Your task to perform on an android device: allow cookies in the chrome app Image 0: 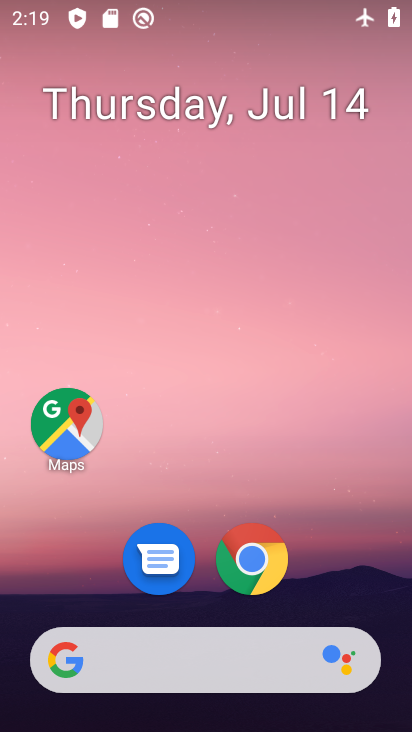
Step 0: drag from (224, 643) to (269, 225)
Your task to perform on an android device: allow cookies in the chrome app Image 1: 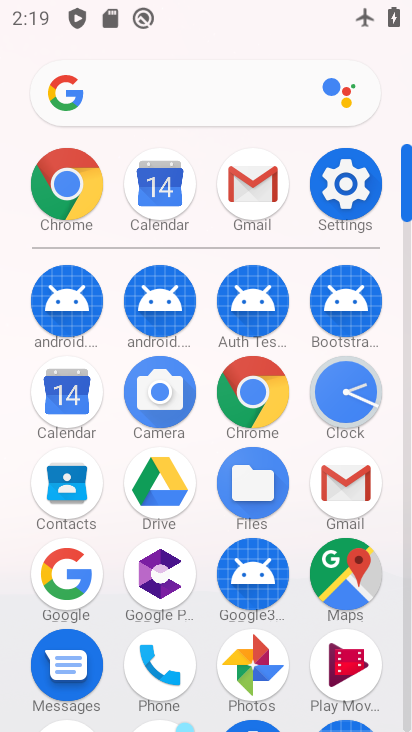
Step 1: click (68, 187)
Your task to perform on an android device: allow cookies in the chrome app Image 2: 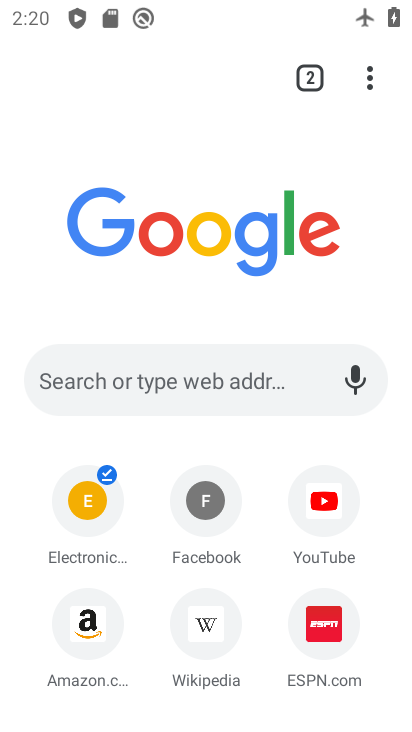
Step 2: click (371, 85)
Your task to perform on an android device: allow cookies in the chrome app Image 3: 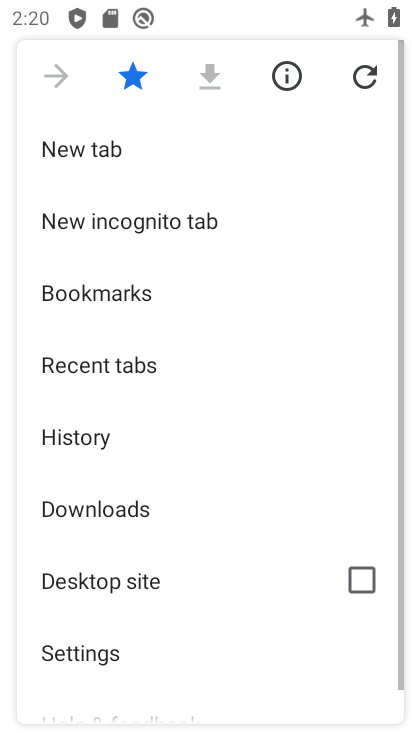
Step 3: drag from (134, 440) to (167, 186)
Your task to perform on an android device: allow cookies in the chrome app Image 4: 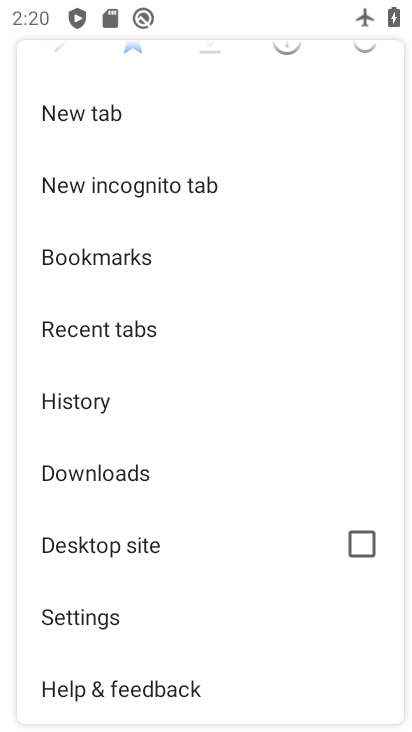
Step 4: click (95, 617)
Your task to perform on an android device: allow cookies in the chrome app Image 5: 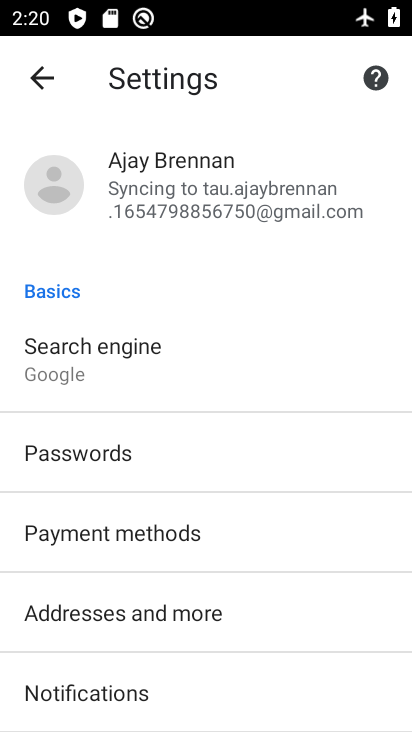
Step 5: drag from (115, 508) to (176, 271)
Your task to perform on an android device: allow cookies in the chrome app Image 6: 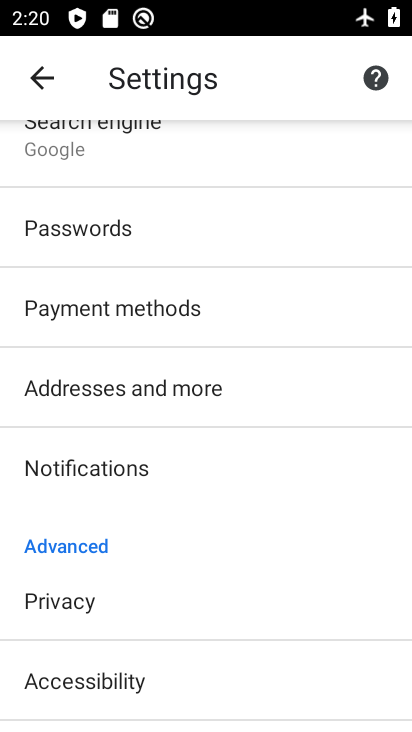
Step 6: drag from (111, 617) to (139, 390)
Your task to perform on an android device: allow cookies in the chrome app Image 7: 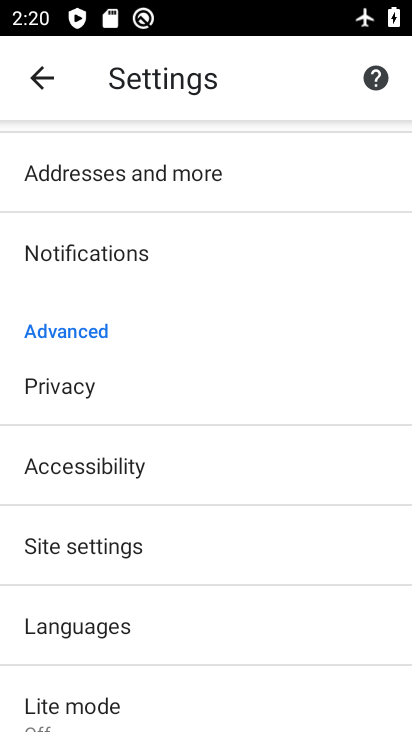
Step 7: click (124, 552)
Your task to perform on an android device: allow cookies in the chrome app Image 8: 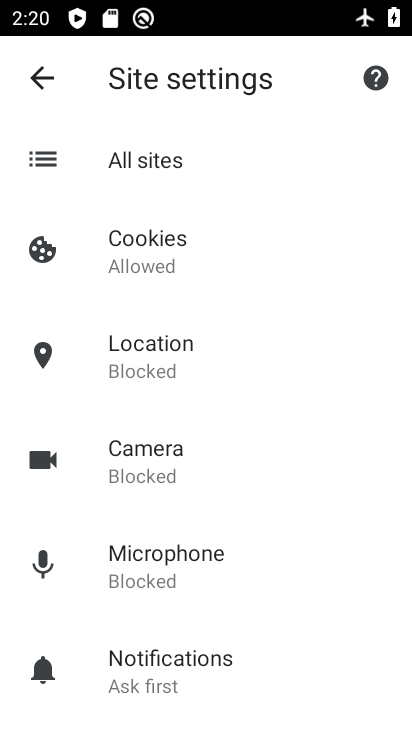
Step 8: click (155, 246)
Your task to perform on an android device: allow cookies in the chrome app Image 9: 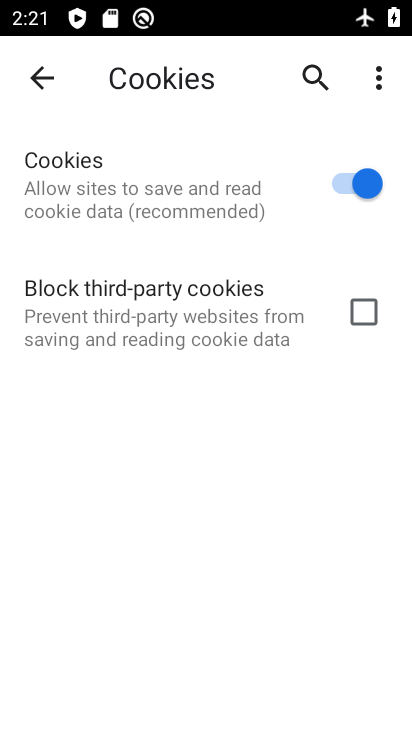
Step 9: task complete